Your task to perform on an android device: check android version Image 0: 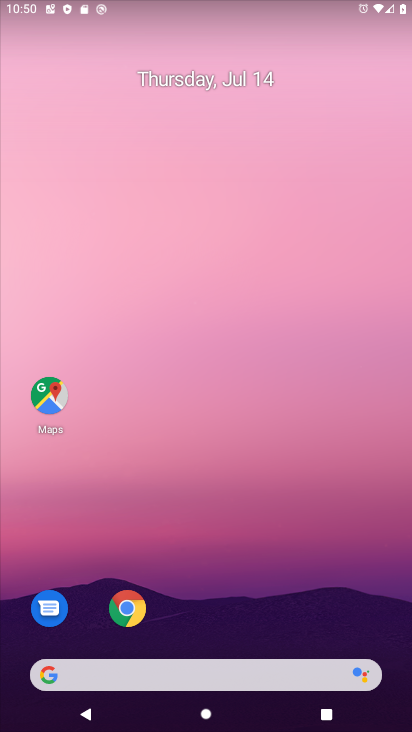
Step 0: drag from (244, 724) to (233, 107)
Your task to perform on an android device: check android version Image 1: 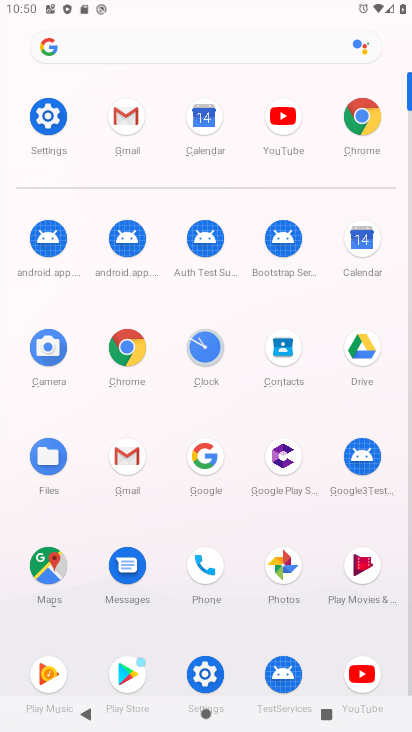
Step 1: click (47, 117)
Your task to perform on an android device: check android version Image 2: 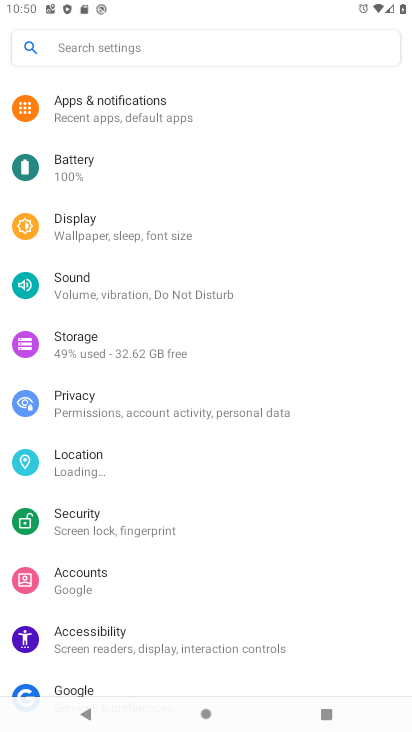
Step 2: drag from (108, 653) to (111, 392)
Your task to perform on an android device: check android version Image 3: 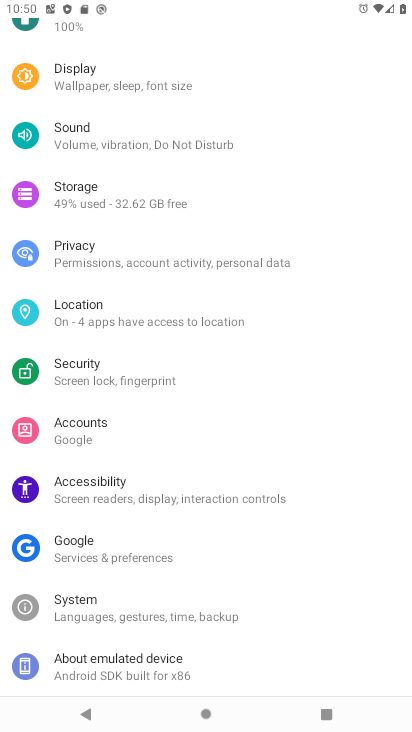
Step 3: click (107, 661)
Your task to perform on an android device: check android version Image 4: 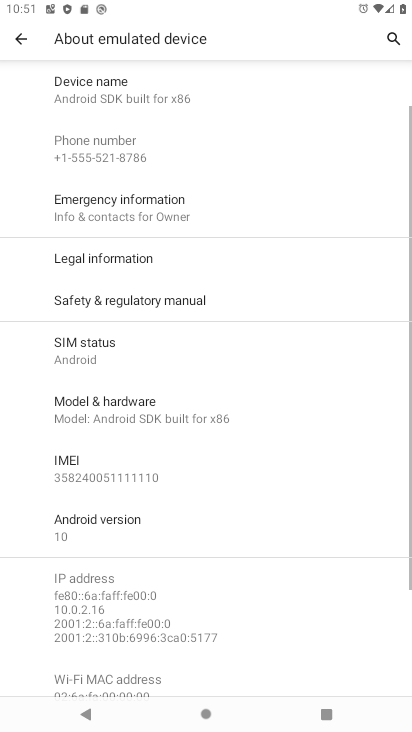
Step 4: click (82, 518)
Your task to perform on an android device: check android version Image 5: 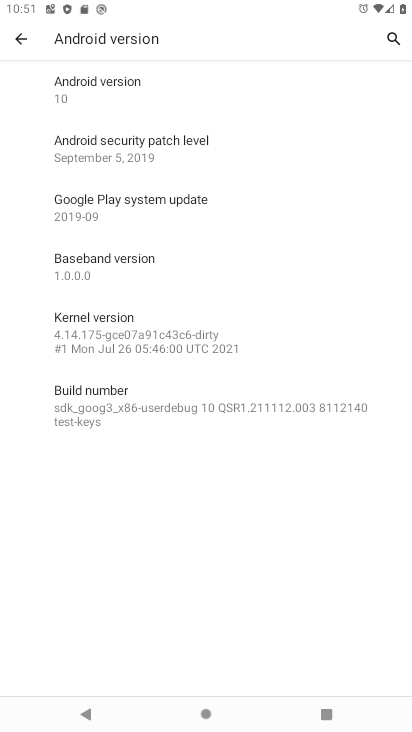
Step 5: task complete